Your task to perform on an android device: Go to sound settings Image 0: 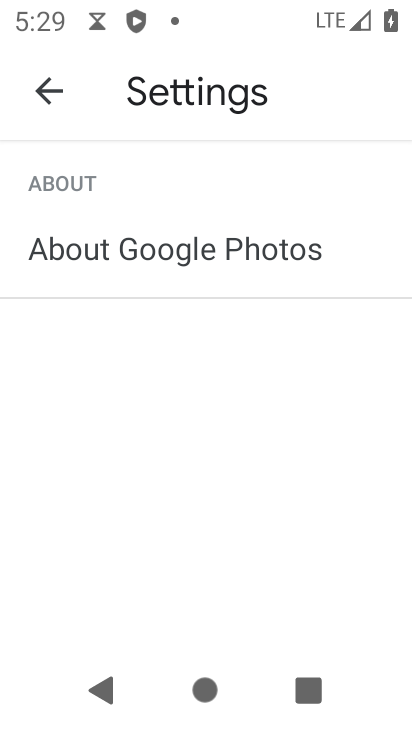
Step 0: press home button
Your task to perform on an android device: Go to sound settings Image 1: 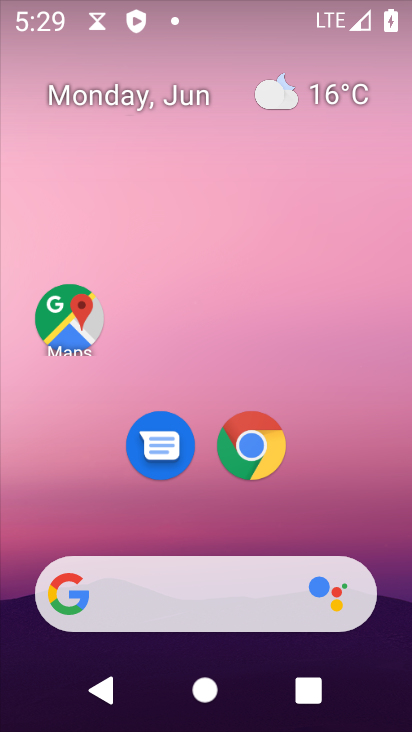
Step 1: drag from (308, 528) to (282, 33)
Your task to perform on an android device: Go to sound settings Image 2: 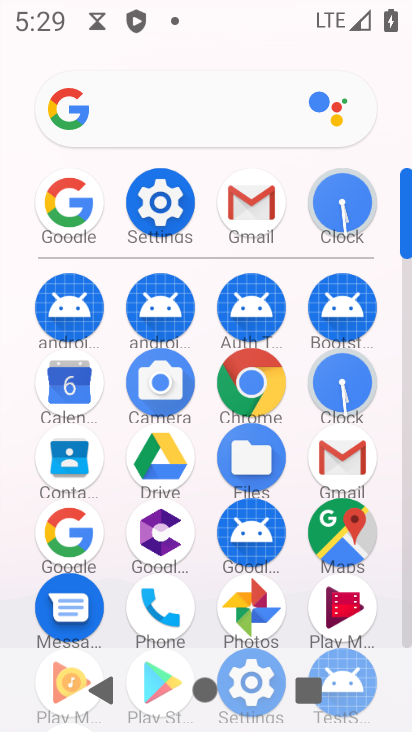
Step 2: click (167, 210)
Your task to perform on an android device: Go to sound settings Image 3: 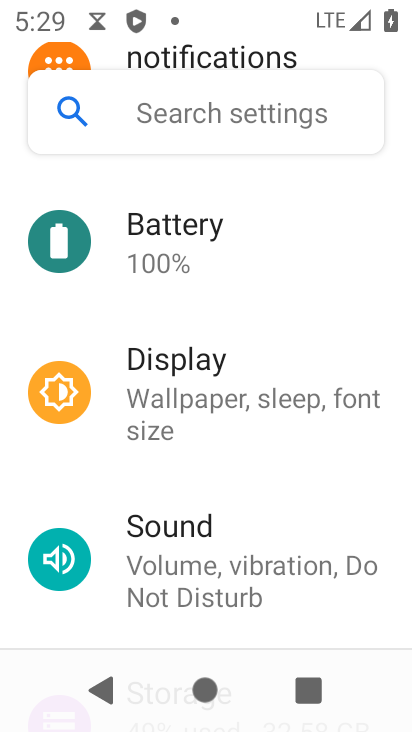
Step 3: click (173, 522)
Your task to perform on an android device: Go to sound settings Image 4: 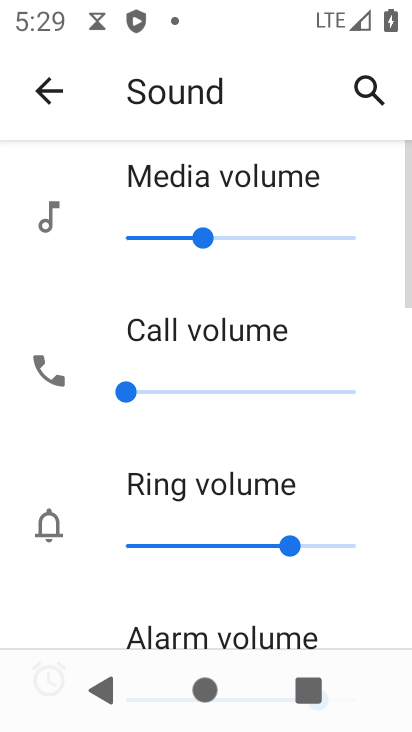
Step 4: task complete